Your task to perform on an android device: open wifi settings Image 0: 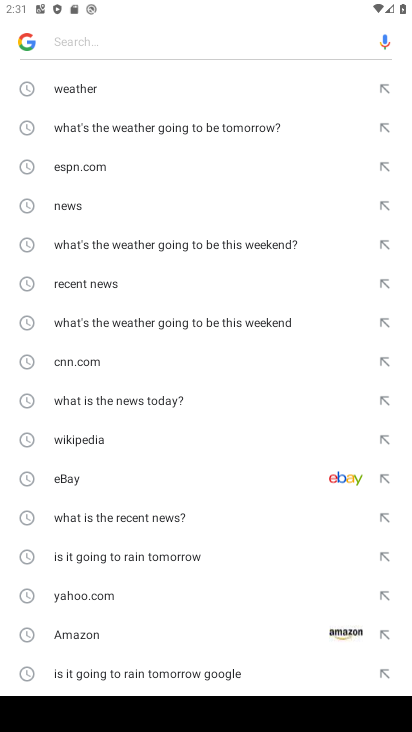
Step 0: press home button
Your task to perform on an android device: open wifi settings Image 1: 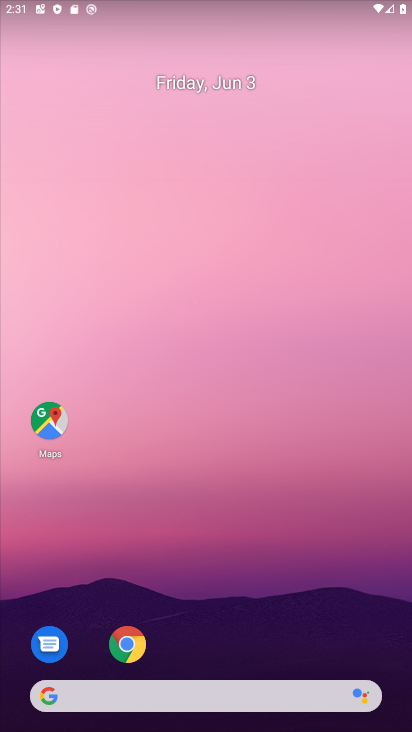
Step 1: drag from (199, 623) to (193, 236)
Your task to perform on an android device: open wifi settings Image 2: 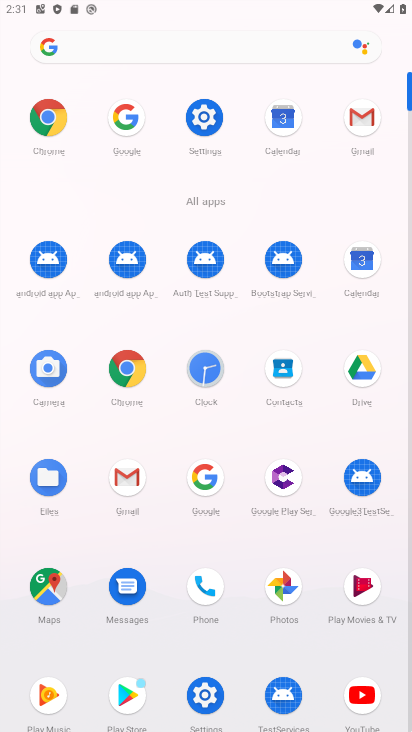
Step 2: click (209, 123)
Your task to perform on an android device: open wifi settings Image 3: 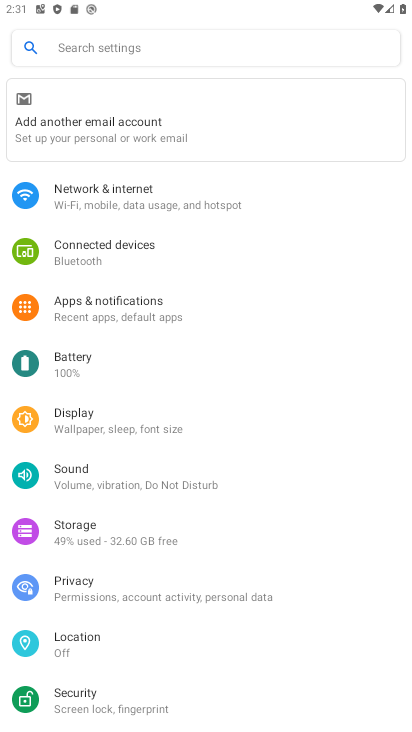
Step 3: click (134, 207)
Your task to perform on an android device: open wifi settings Image 4: 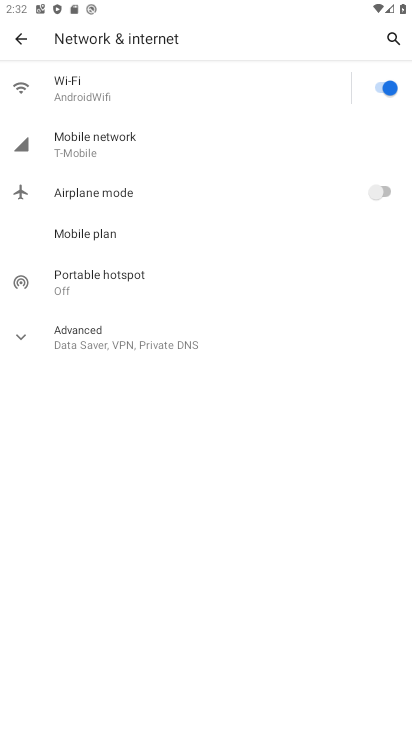
Step 4: click (78, 86)
Your task to perform on an android device: open wifi settings Image 5: 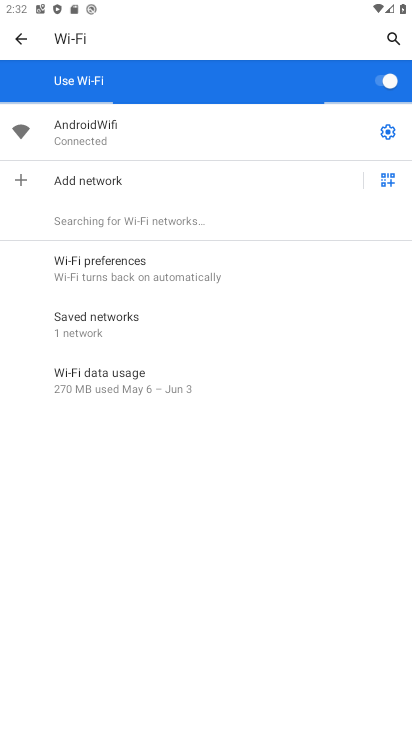
Step 5: task complete